Your task to perform on an android device: star an email in the gmail app Image 0: 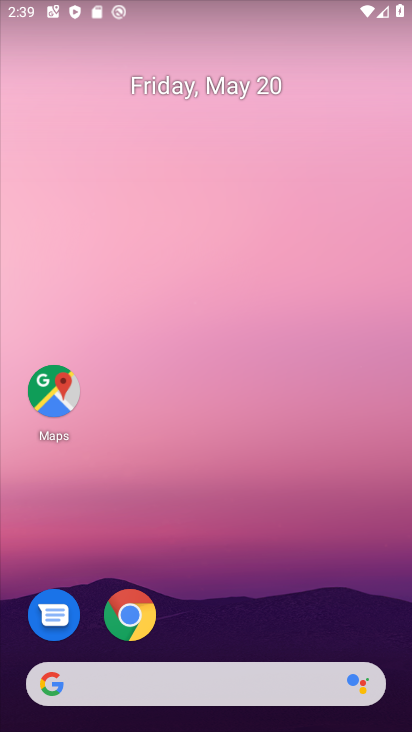
Step 0: drag from (267, 477) to (216, 197)
Your task to perform on an android device: star an email in the gmail app Image 1: 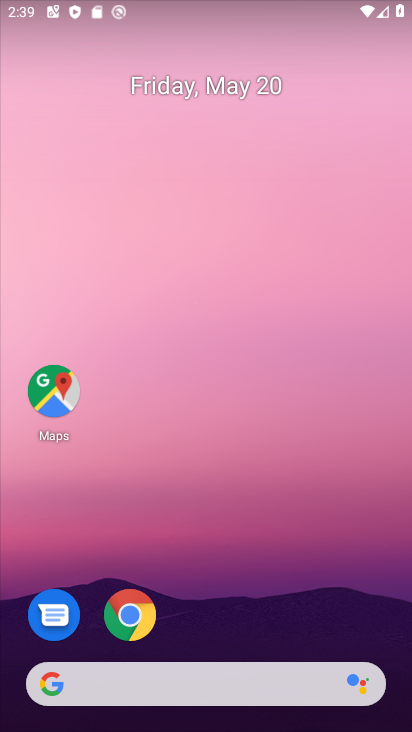
Step 1: drag from (243, 542) to (235, 118)
Your task to perform on an android device: star an email in the gmail app Image 2: 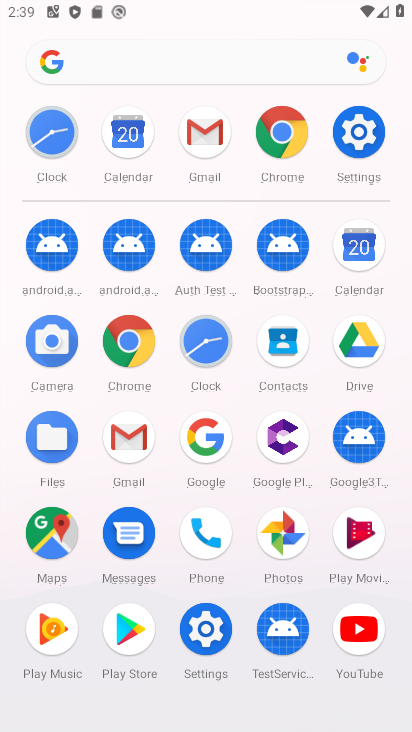
Step 2: click (136, 428)
Your task to perform on an android device: star an email in the gmail app Image 3: 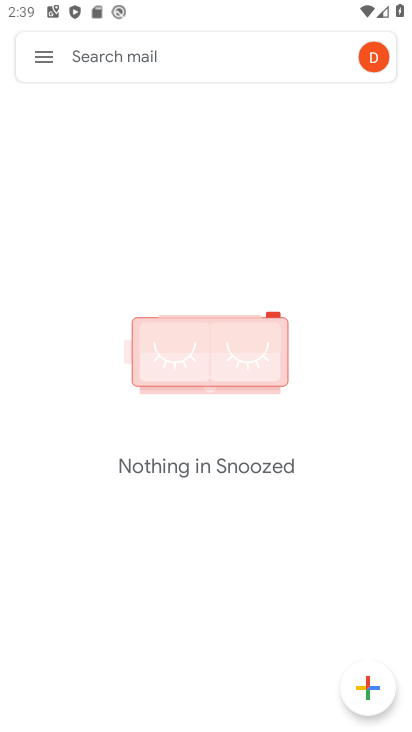
Step 3: click (45, 53)
Your task to perform on an android device: star an email in the gmail app Image 4: 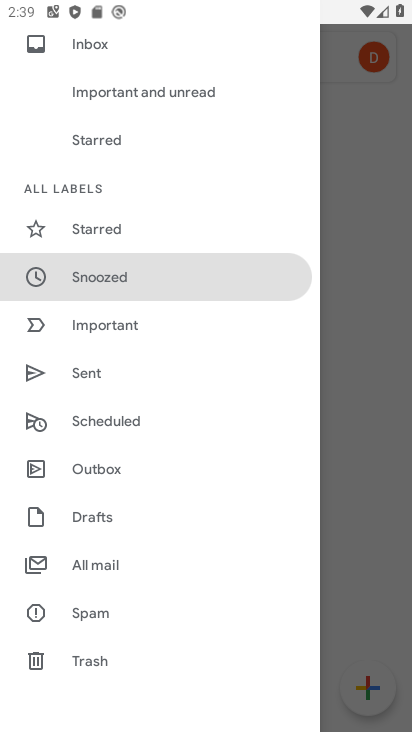
Step 4: click (115, 217)
Your task to perform on an android device: star an email in the gmail app Image 5: 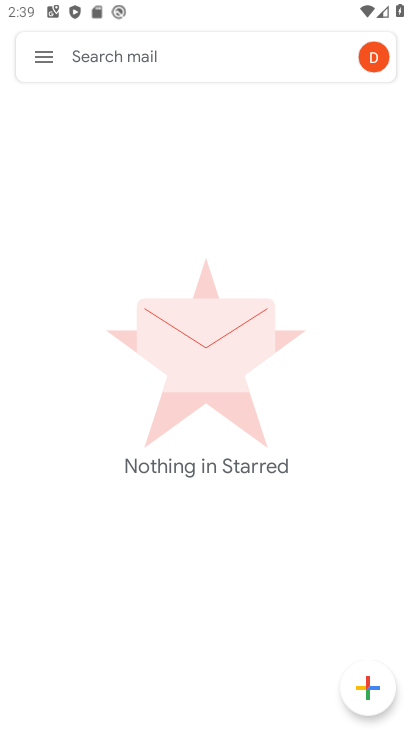
Step 5: task complete